Your task to perform on an android device: Go to Yahoo.com Image 0: 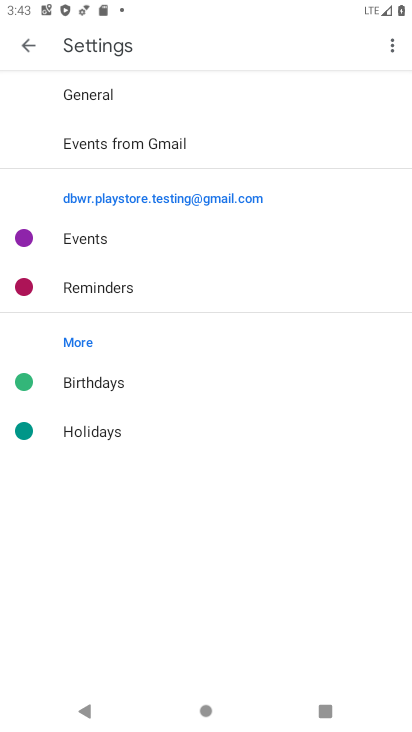
Step 0: press home button
Your task to perform on an android device: Go to Yahoo.com Image 1: 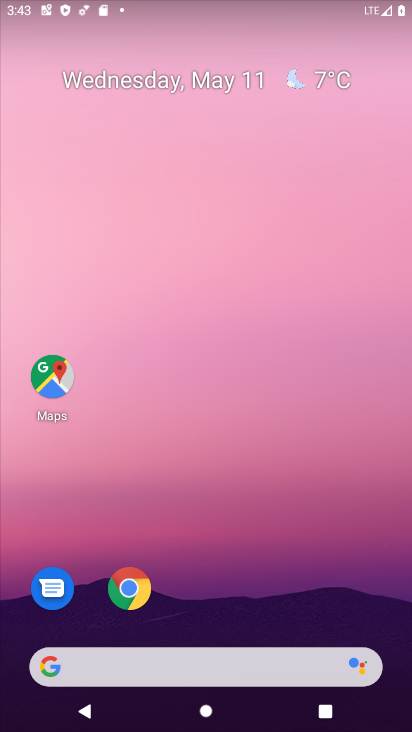
Step 1: click (129, 590)
Your task to perform on an android device: Go to Yahoo.com Image 2: 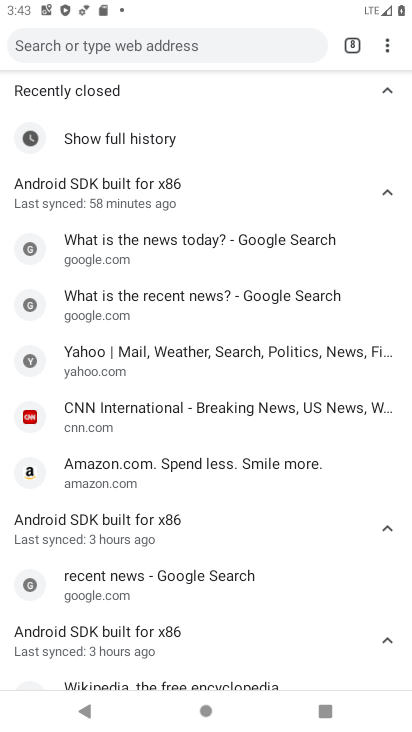
Step 2: click (387, 49)
Your task to perform on an android device: Go to Yahoo.com Image 3: 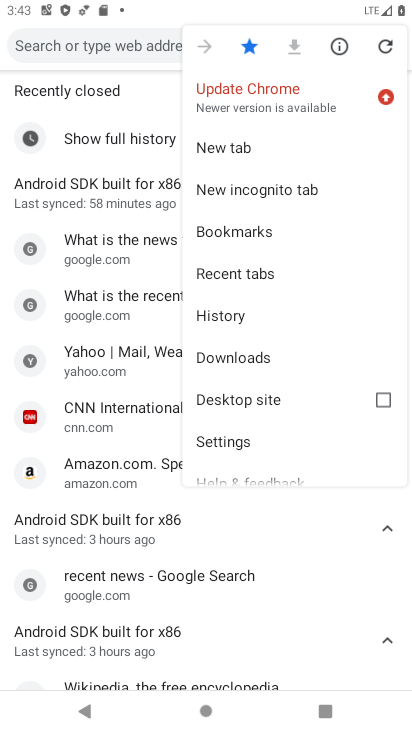
Step 3: click (227, 146)
Your task to perform on an android device: Go to Yahoo.com Image 4: 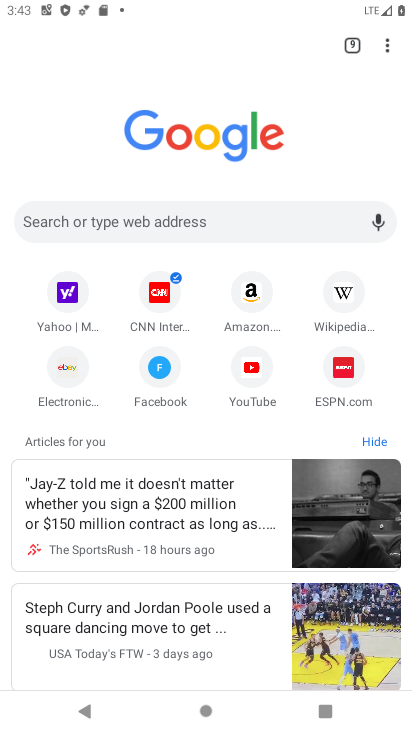
Step 4: click (68, 295)
Your task to perform on an android device: Go to Yahoo.com Image 5: 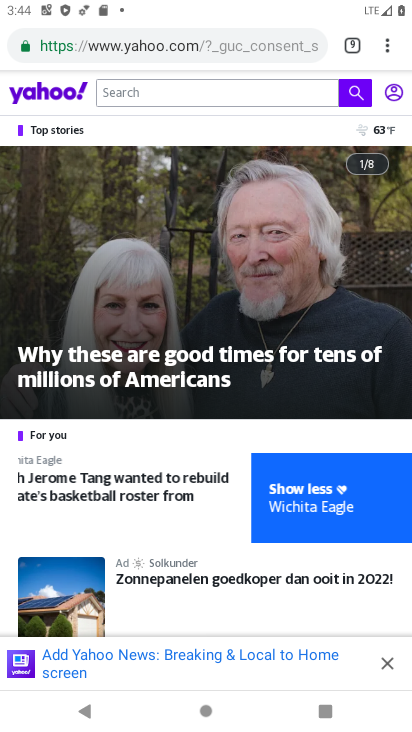
Step 5: task complete